Your task to perform on an android device: Open sound settings Image 0: 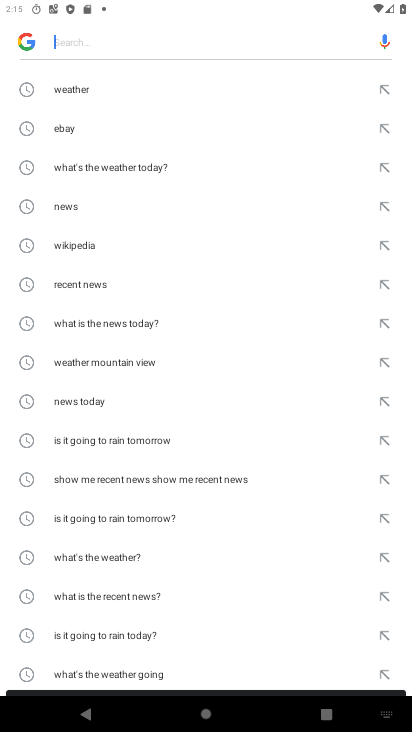
Step 0: press home button
Your task to perform on an android device: Open sound settings Image 1: 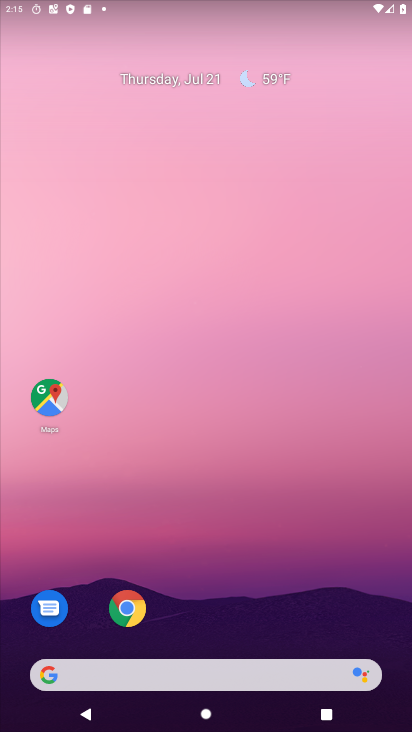
Step 1: drag from (228, 640) to (299, 106)
Your task to perform on an android device: Open sound settings Image 2: 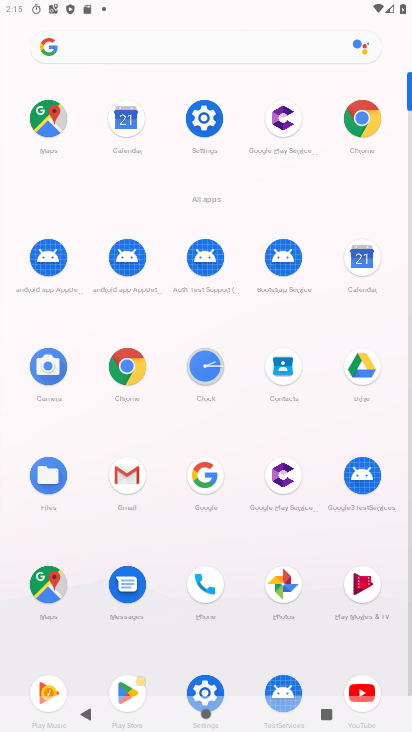
Step 2: click (201, 121)
Your task to perform on an android device: Open sound settings Image 3: 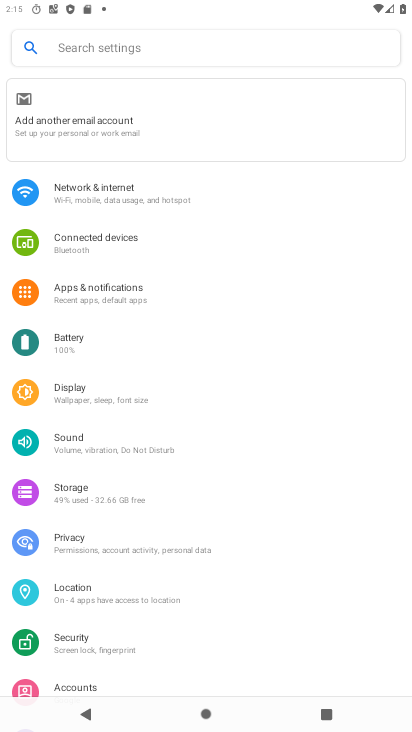
Step 3: click (123, 448)
Your task to perform on an android device: Open sound settings Image 4: 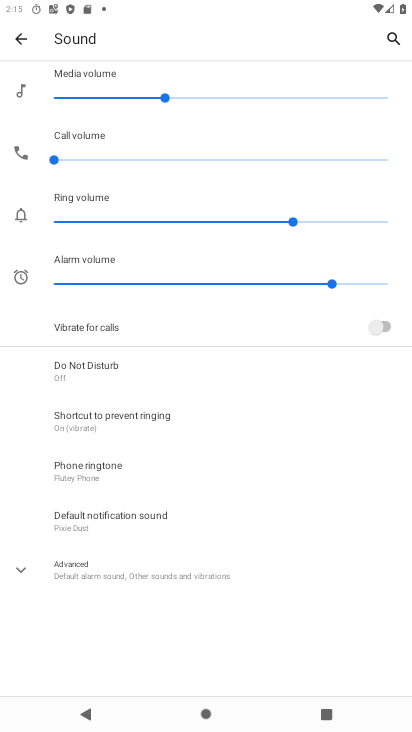
Step 4: task complete